Your task to perform on an android device: delete a single message in the gmail app Image 0: 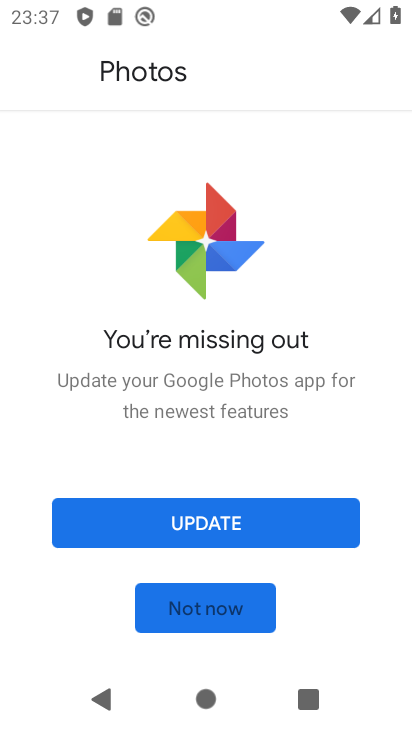
Step 0: press home button
Your task to perform on an android device: delete a single message in the gmail app Image 1: 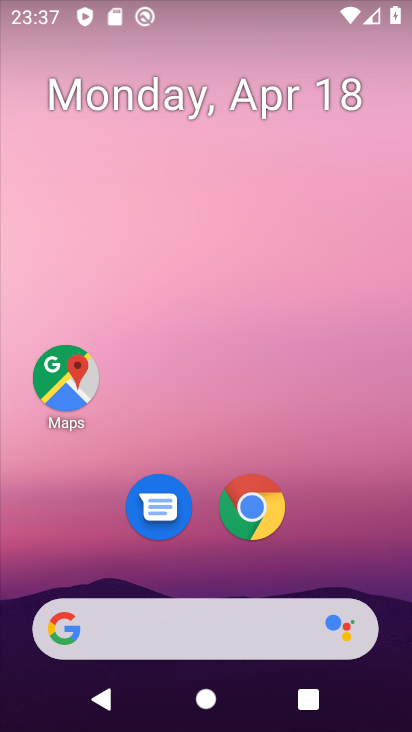
Step 1: drag from (319, 530) to (352, 87)
Your task to perform on an android device: delete a single message in the gmail app Image 2: 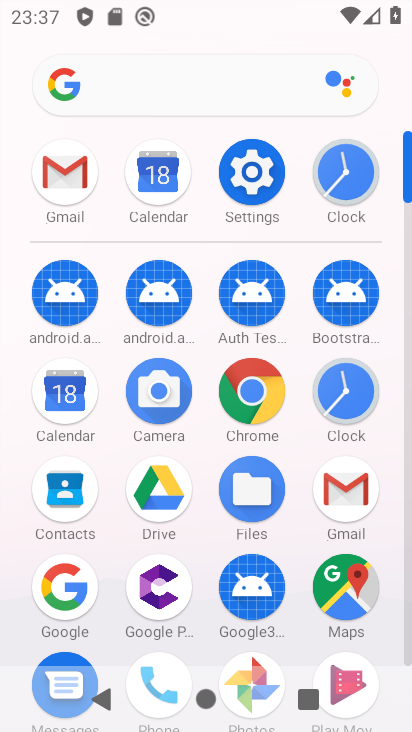
Step 2: click (330, 493)
Your task to perform on an android device: delete a single message in the gmail app Image 3: 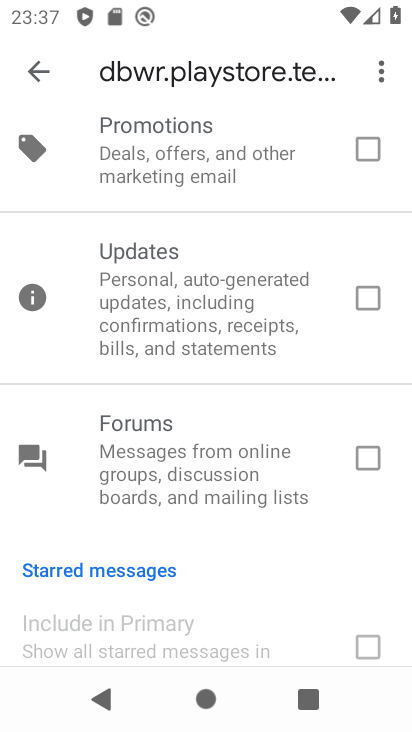
Step 3: click (325, 472)
Your task to perform on an android device: delete a single message in the gmail app Image 4: 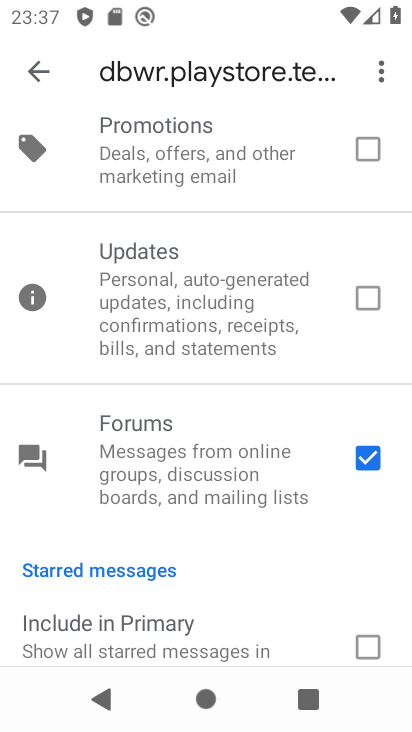
Step 4: click (325, 472)
Your task to perform on an android device: delete a single message in the gmail app Image 5: 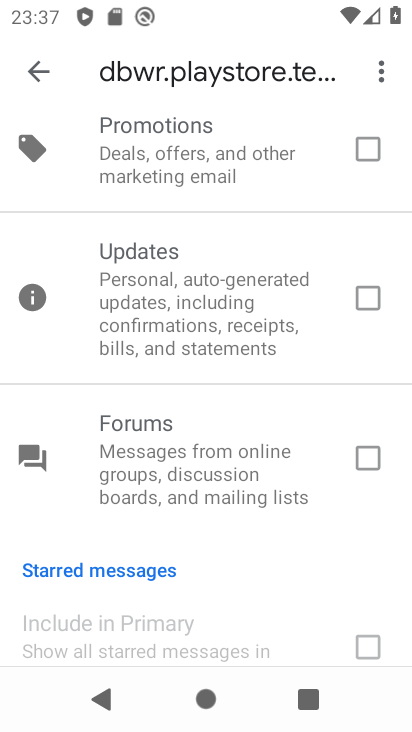
Step 5: click (41, 63)
Your task to perform on an android device: delete a single message in the gmail app Image 6: 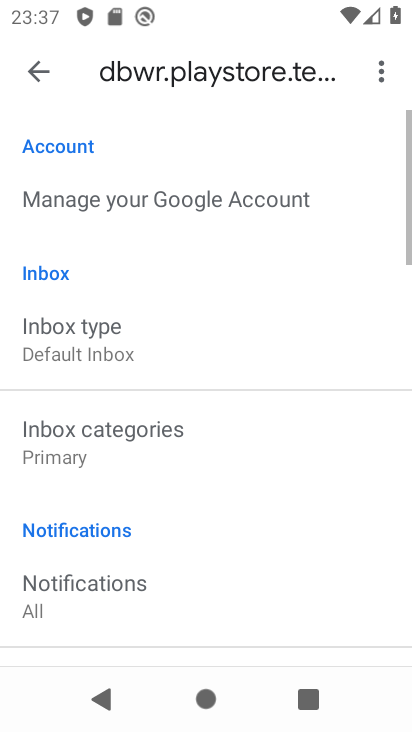
Step 6: click (41, 63)
Your task to perform on an android device: delete a single message in the gmail app Image 7: 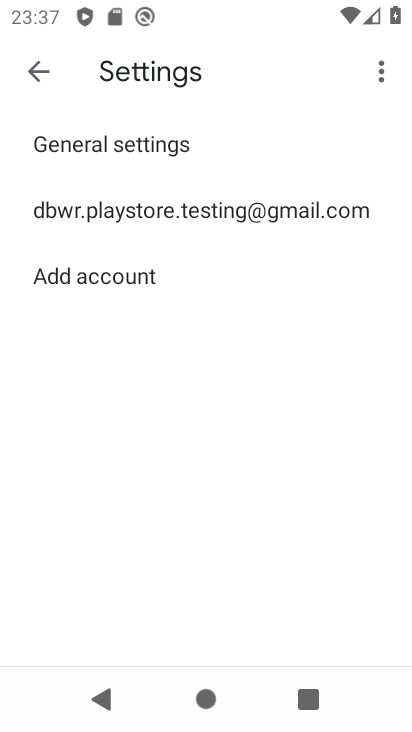
Step 7: click (41, 63)
Your task to perform on an android device: delete a single message in the gmail app Image 8: 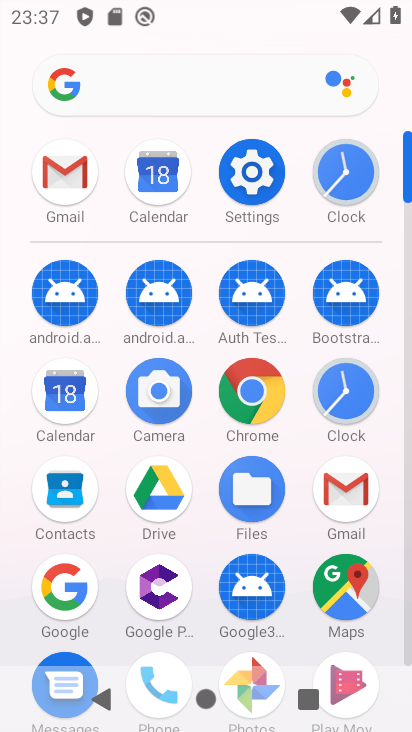
Step 8: click (52, 170)
Your task to perform on an android device: delete a single message in the gmail app Image 9: 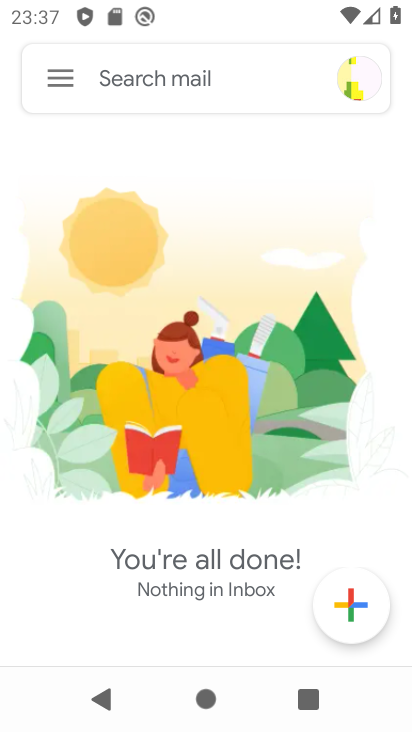
Step 9: click (57, 77)
Your task to perform on an android device: delete a single message in the gmail app Image 10: 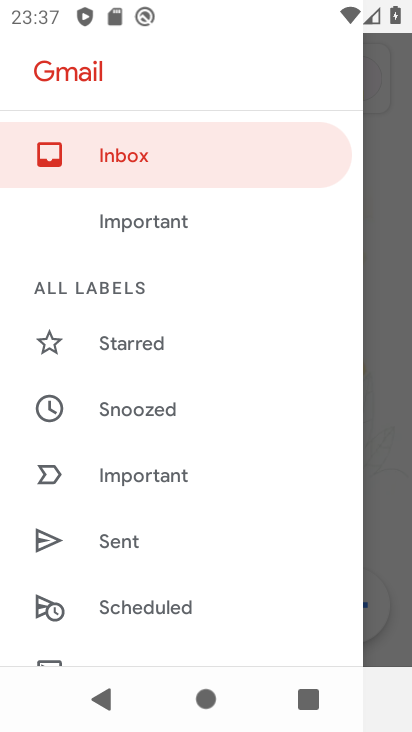
Step 10: drag from (231, 529) to (265, 120)
Your task to perform on an android device: delete a single message in the gmail app Image 11: 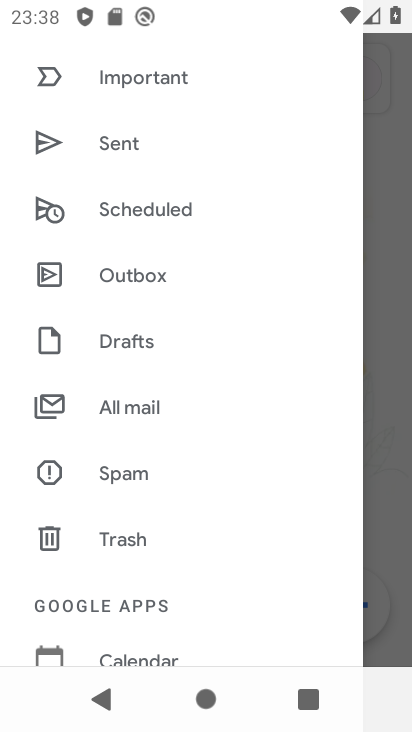
Step 11: click (169, 399)
Your task to perform on an android device: delete a single message in the gmail app Image 12: 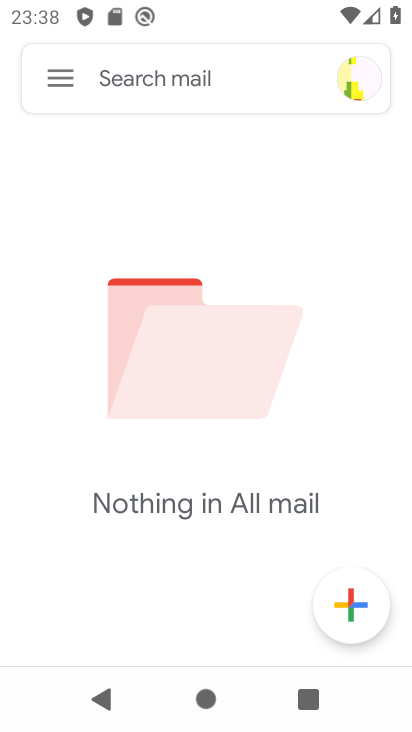
Step 12: task complete